Your task to perform on an android device: Show the shopping cart on target.com. Search for "razer thresher" on target.com, select the first entry, and add it to the cart. Image 0: 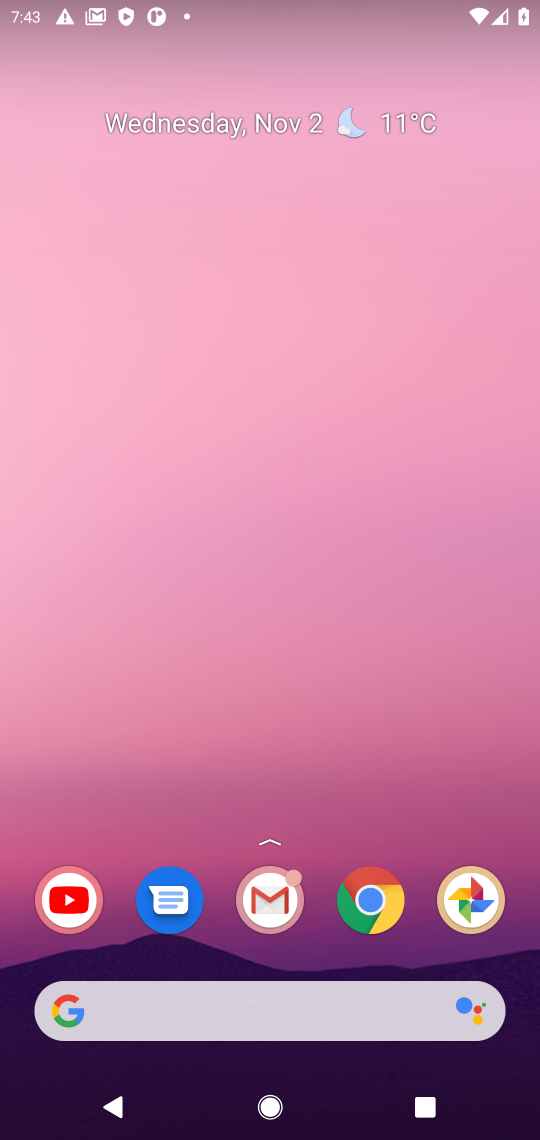
Step 0: click (188, 1016)
Your task to perform on an android device: Show the shopping cart on target.com. Search for "razer thresher" on target.com, select the first entry, and add it to the cart. Image 1: 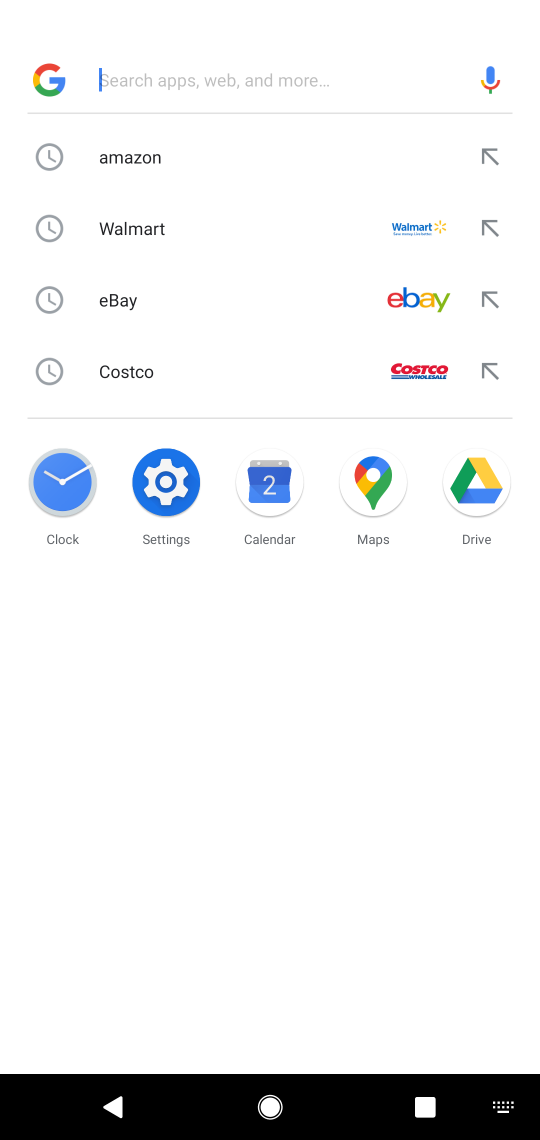
Step 1: type "target"
Your task to perform on an android device: Show the shopping cart on target.com. Search for "razer thresher" on target.com, select the first entry, and add it to the cart. Image 2: 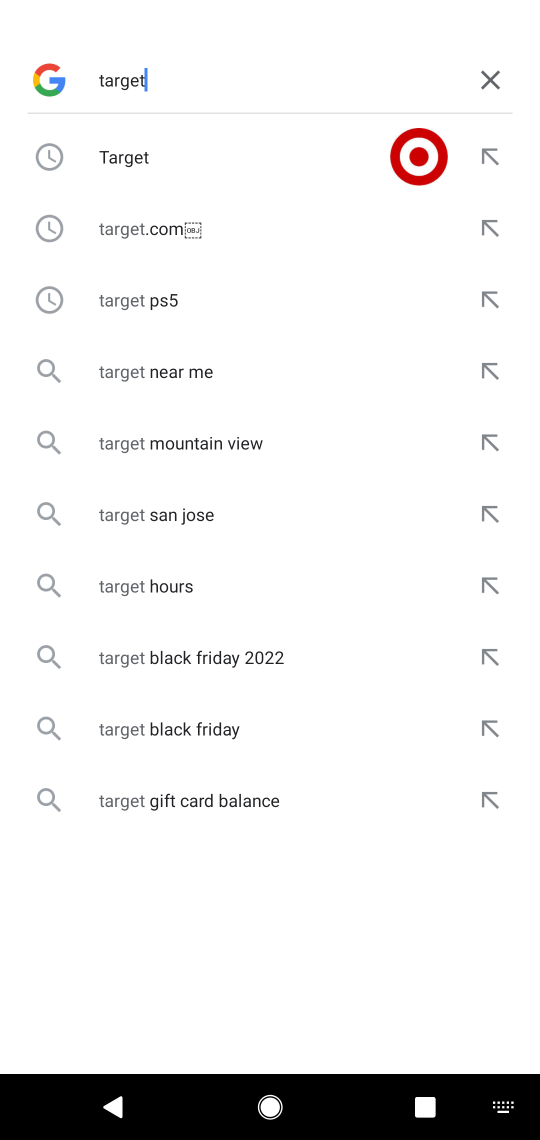
Step 2: click (113, 153)
Your task to perform on an android device: Show the shopping cart on target.com. Search for "razer thresher" on target.com, select the first entry, and add it to the cart. Image 3: 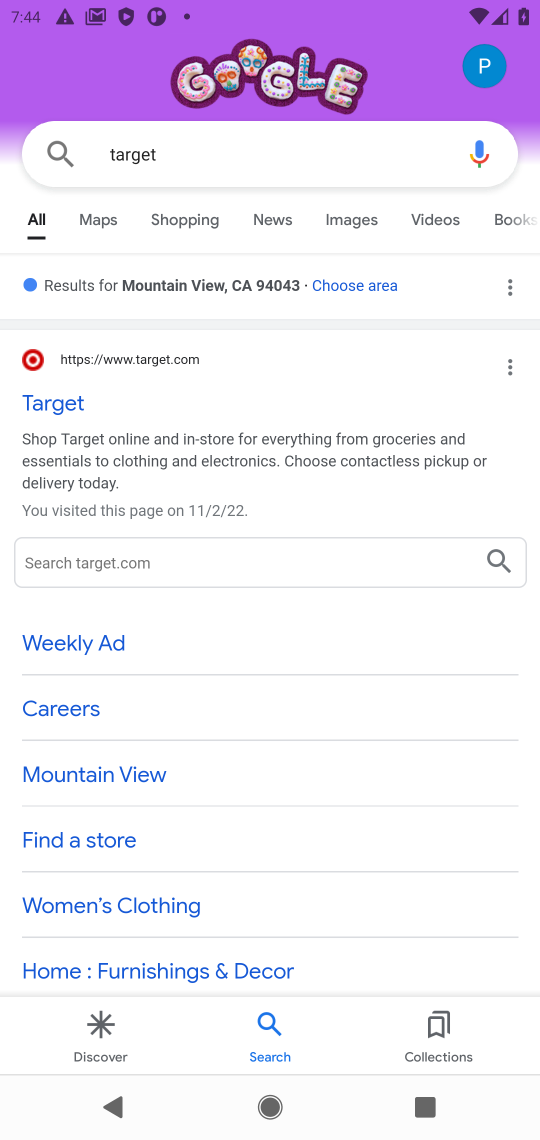
Step 3: click (53, 397)
Your task to perform on an android device: Show the shopping cart on target.com. Search for "razer thresher" on target.com, select the first entry, and add it to the cart. Image 4: 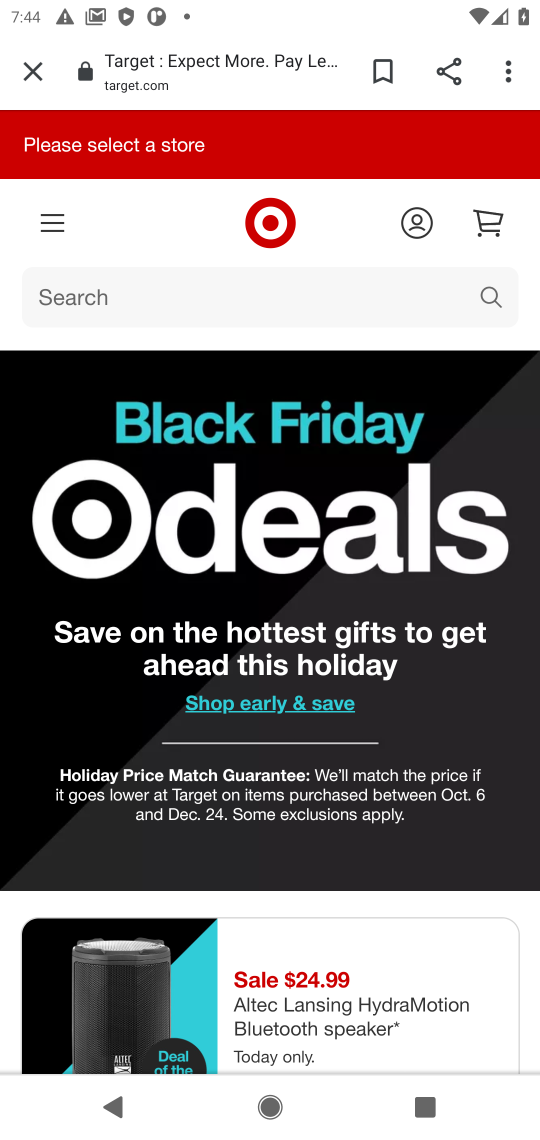
Step 4: click (147, 288)
Your task to perform on an android device: Show the shopping cart on target.com. Search for "razer thresher" on target.com, select the first entry, and add it to the cart. Image 5: 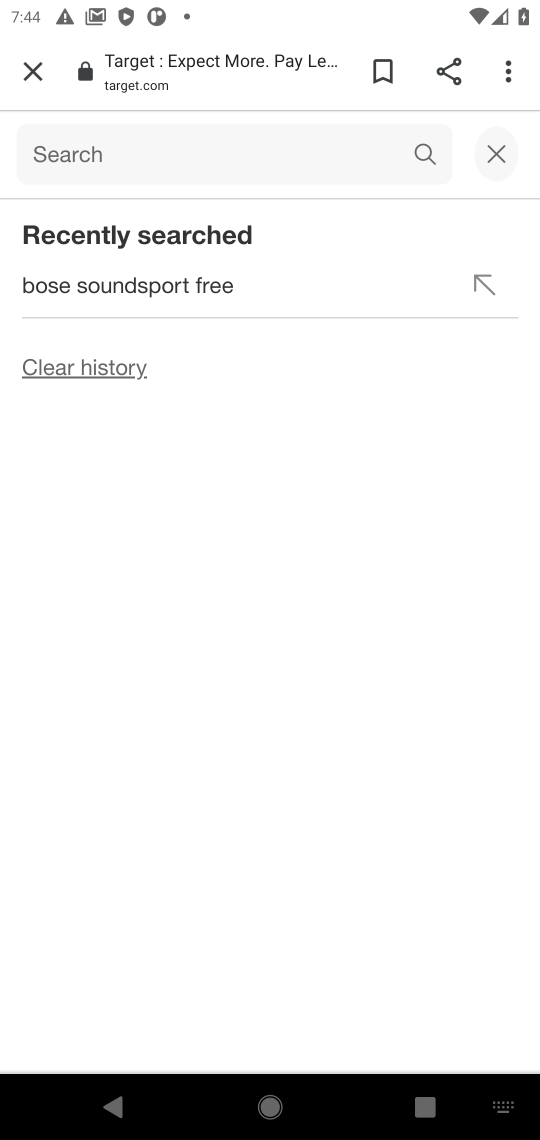
Step 5: type "razer thresher"
Your task to perform on an android device: Show the shopping cart on target.com. Search for "razer thresher" on target.com, select the first entry, and add it to the cart. Image 6: 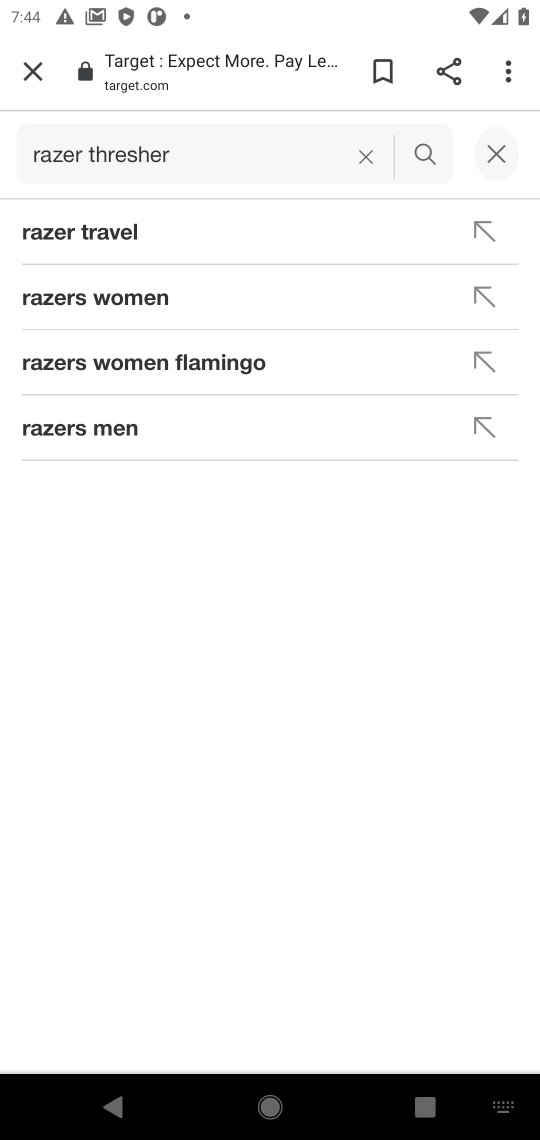
Step 6: click (420, 142)
Your task to perform on an android device: Show the shopping cart on target.com. Search for "razer thresher" on target.com, select the first entry, and add it to the cart. Image 7: 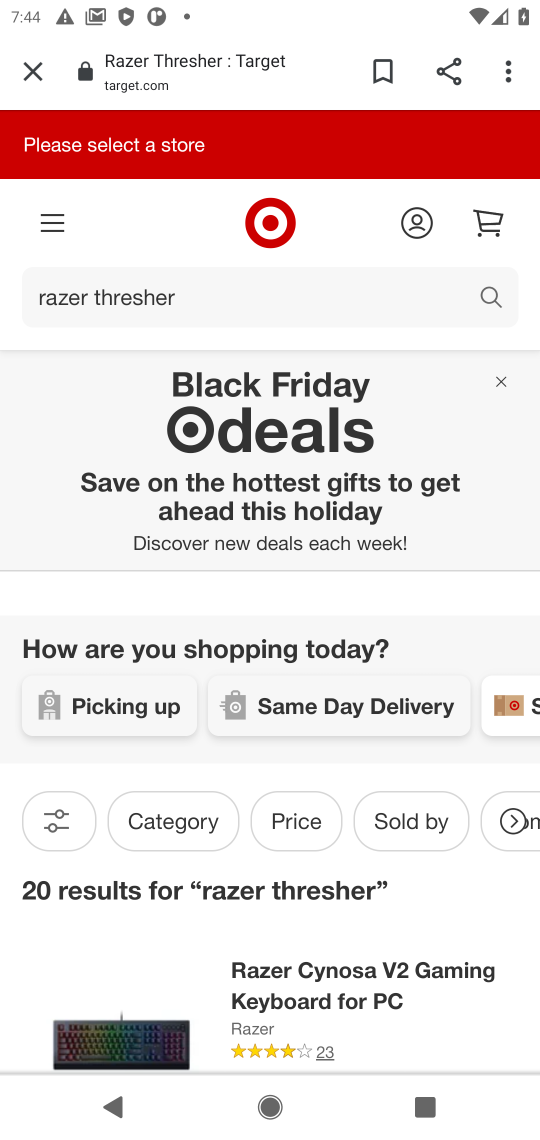
Step 7: drag from (421, 601) to (404, 364)
Your task to perform on an android device: Show the shopping cart on target.com. Search for "razer thresher" on target.com, select the first entry, and add it to the cart. Image 8: 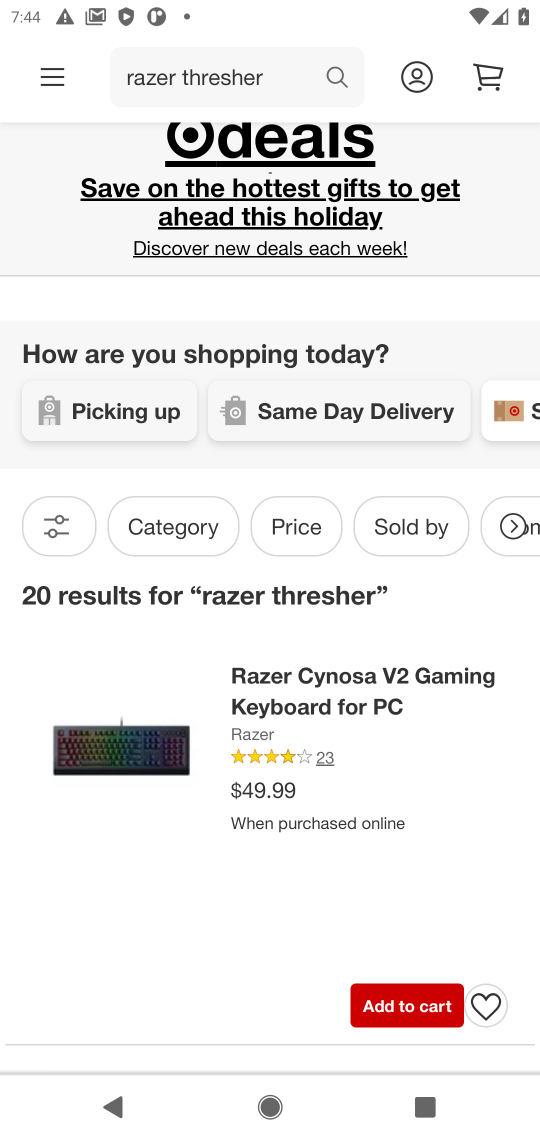
Step 8: drag from (437, 827) to (411, 668)
Your task to perform on an android device: Show the shopping cart on target.com. Search for "razer thresher" on target.com, select the first entry, and add it to the cart. Image 9: 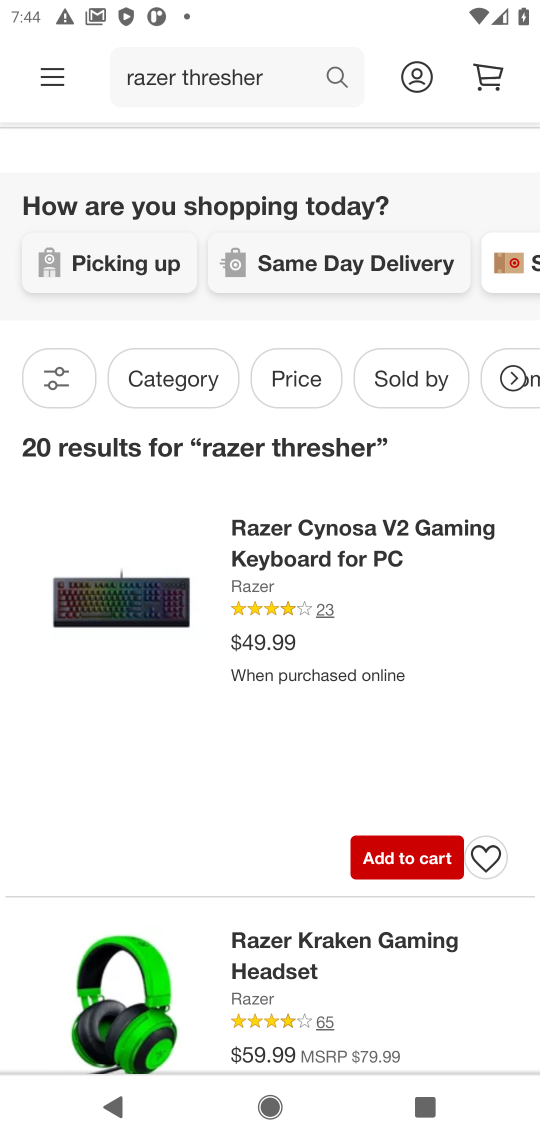
Step 9: click (392, 855)
Your task to perform on an android device: Show the shopping cart on target.com. Search for "razer thresher" on target.com, select the first entry, and add it to the cart. Image 10: 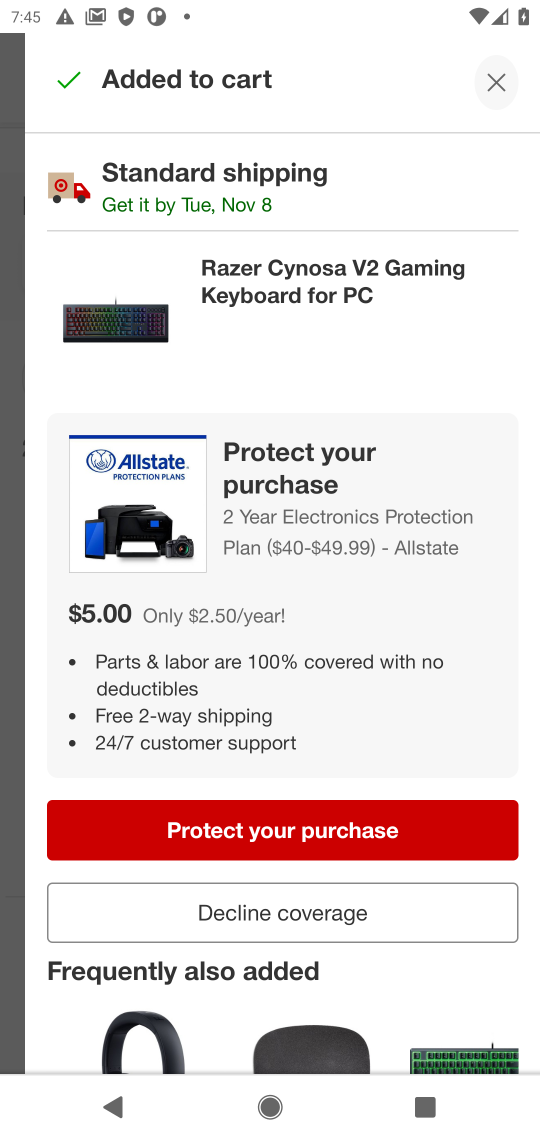
Step 10: task complete